Your task to perform on an android device: toggle improve location accuracy Image 0: 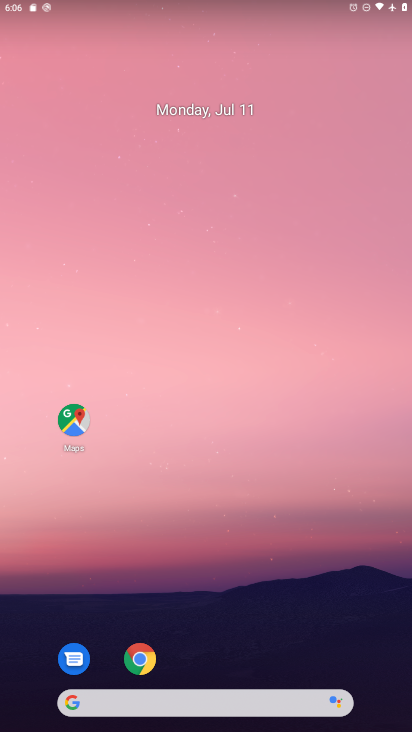
Step 0: drag from (349, 657) to (332, 2)
Your task to perform on an android device: toggle improve location accuracy Image 1: 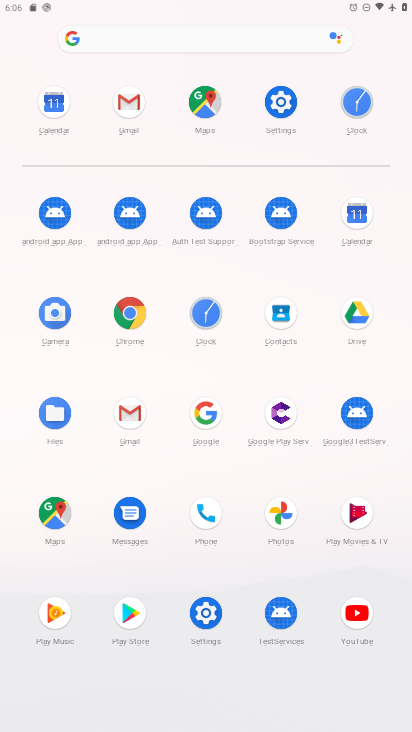
Step 1: click (204, 611)
Your task to perform on an android device: toggle improve location accuracy Image 2: 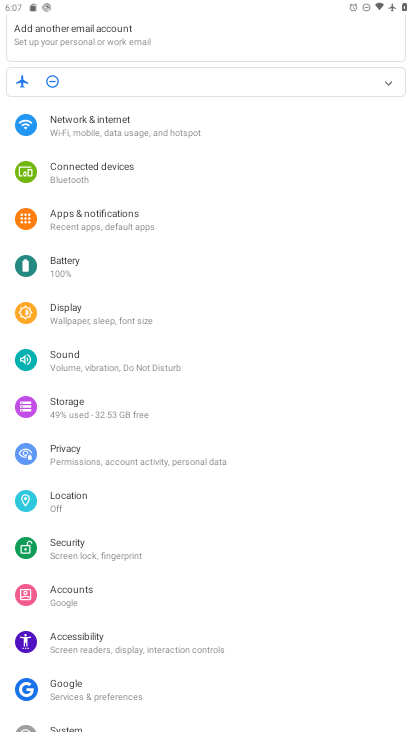
Step 2: click (55, 496)
Your task to perform on an android device: toggle improve location accuracy Image 3: 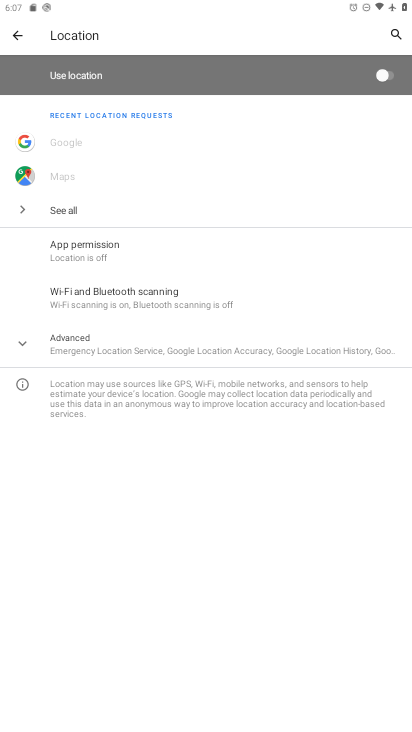
Step 3: click (22, 342)
Your task to perform on an android device: toggle improve location accuracy Image 4: 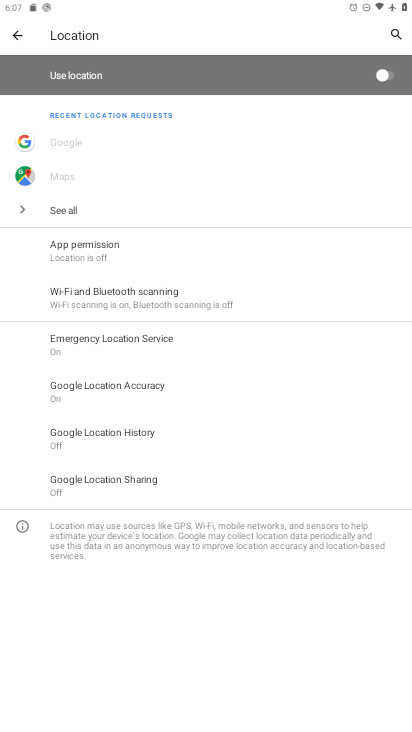
Step 4: click (105, 390)
Your task to perform on an android device: toggle improve location accuracy Image 5: 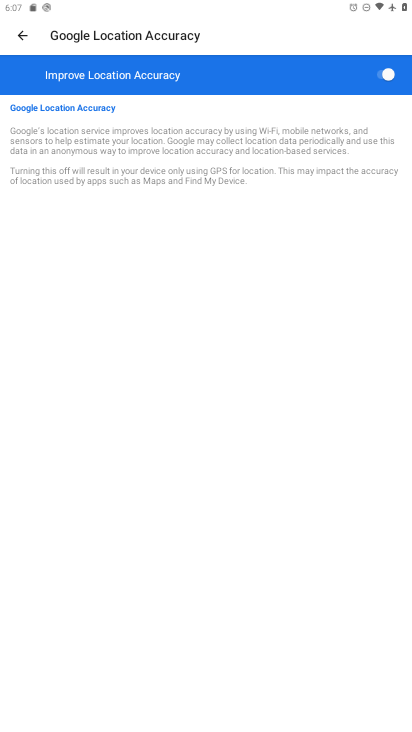
Step 5: click (379, 77)
Your task to perform on an android device: toggle improve location accuracy Image 6: 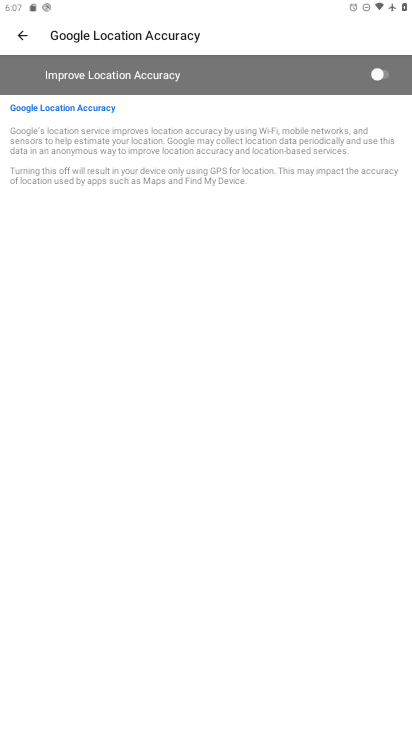
Step 6: task complete